Your task to perform on an android device: turn off airplane mode Image 0: 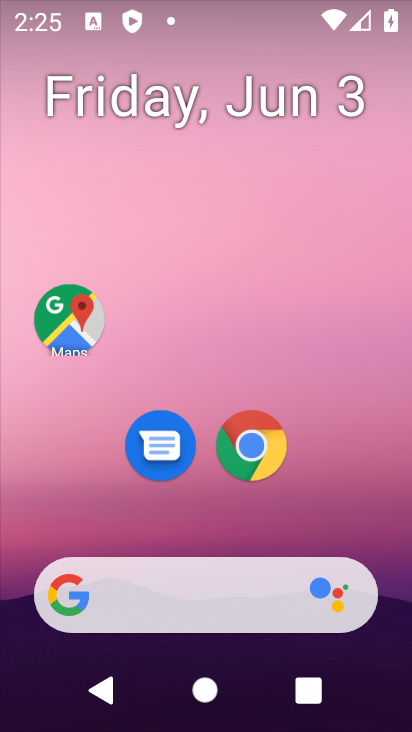
Step 0: drag from (234, 15) to (29, 462)
Your task to perform on an android device: turn off airplane mode Image 1: 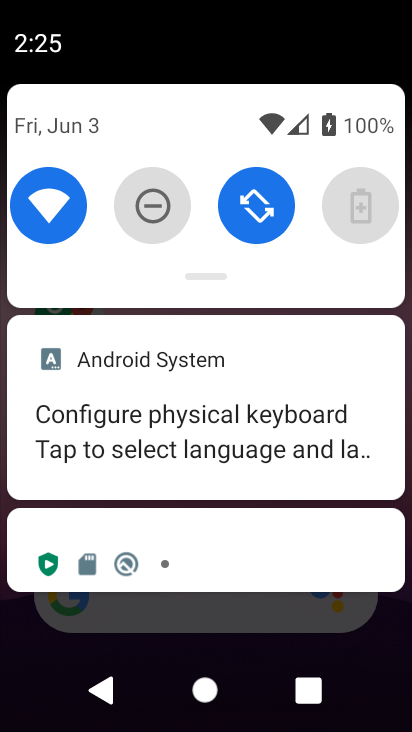
Step 1: task complete